Your task to perform on an android device: change the upload size in google photos Image 0: 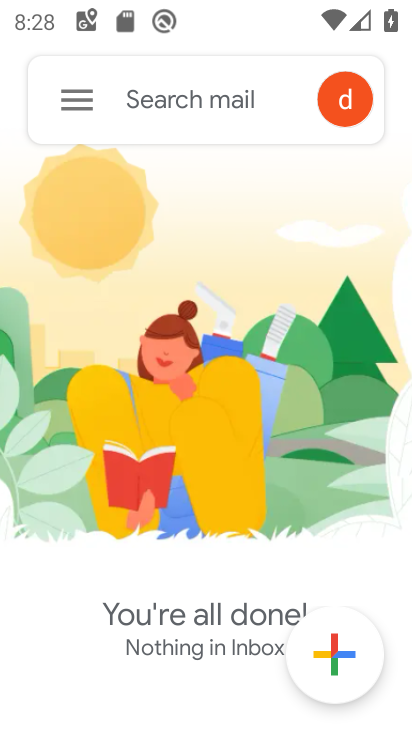
Step 0: press home button
Your task to perform on an android device: change the upload size in google photos Image 1: 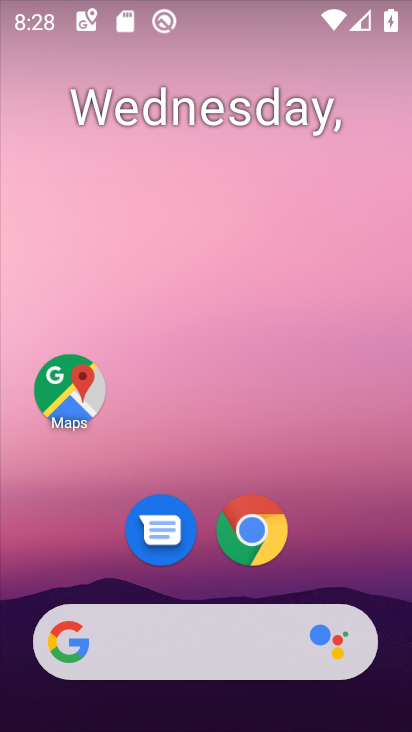
Step 1: drag from (399, 646) to (326, 39)
Your task to perform on an android device: change the upload size in google photos Image 2: 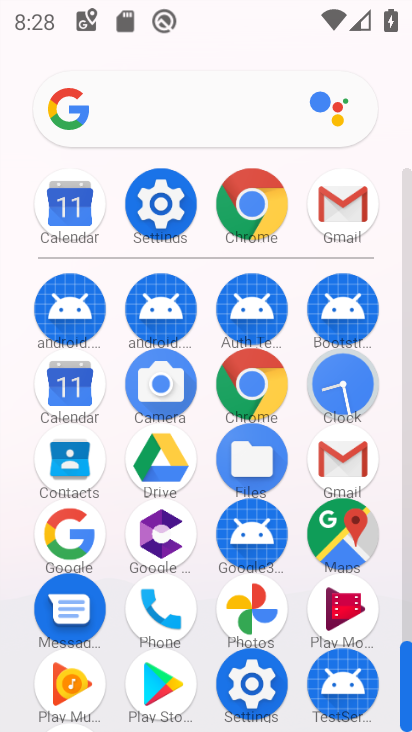
Step 2: click (266, 599)
Your task to perform on an android device: change the upload size in google photos Image 3: 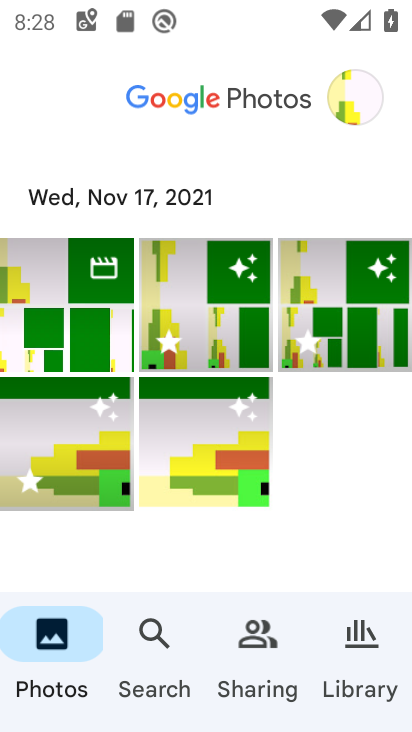
Step 3: click (341, 83)
Your task to perform on an android device: change the upload size in google photos Image 4: 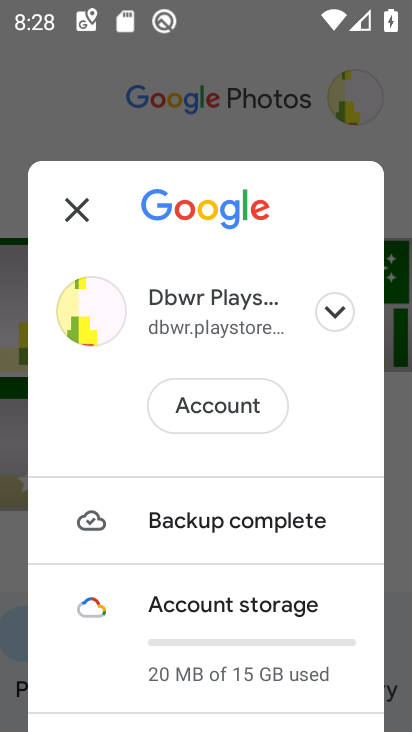
Step 4: drag from (219, 606) to (244, 275)
Your task to perform on an android device: change the upload size in google photos Image 5: 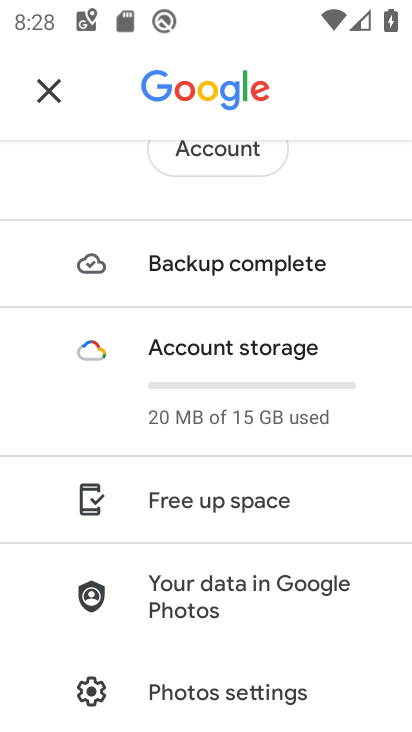
Step 5: click (200, 678)
Your task to perform on an android device: change the upload size in google photos Image 6: 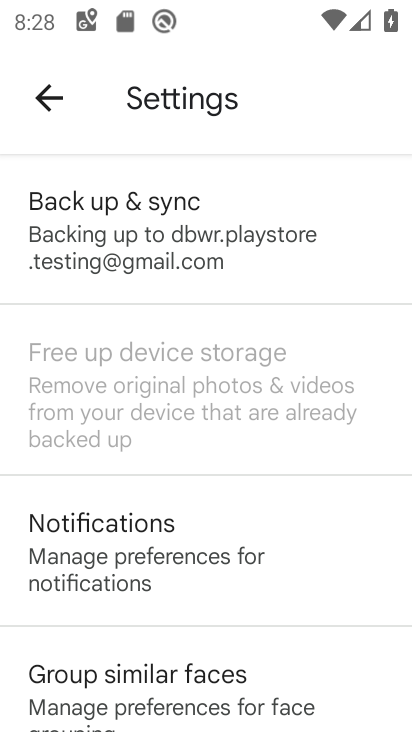
Step 6: click (162, 264)
Your task to perform on an android device: change the upload size in google photos Image 7: 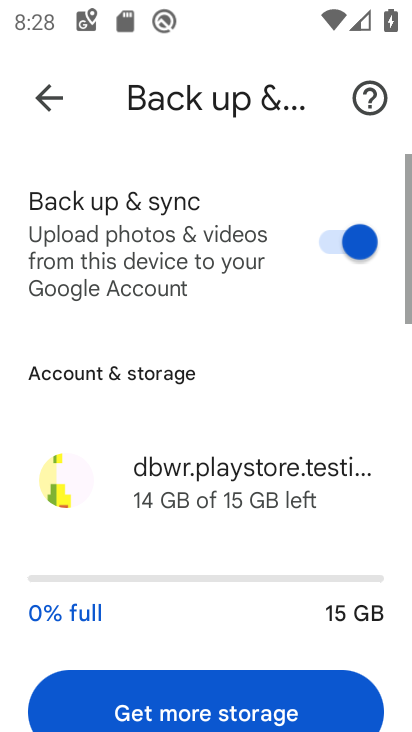
Step 7: drag from (193, 630) to (242, 205)
Your task to perform on an android device: change the upload size in google photos Image 8: 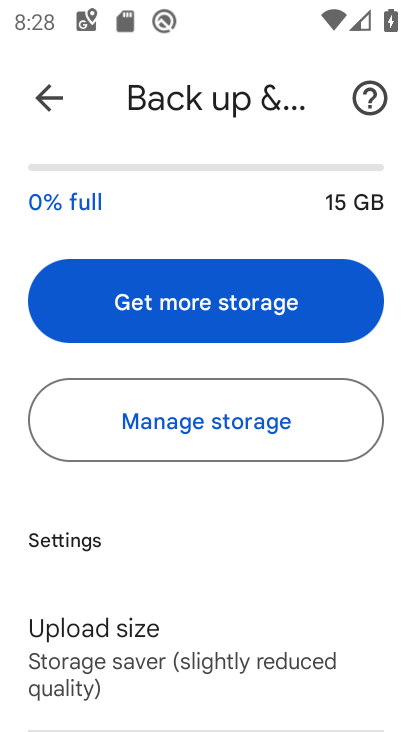
Step 8: click (131, 643)
Your task to perform on an android device: change the upload size in google photos Image 9: 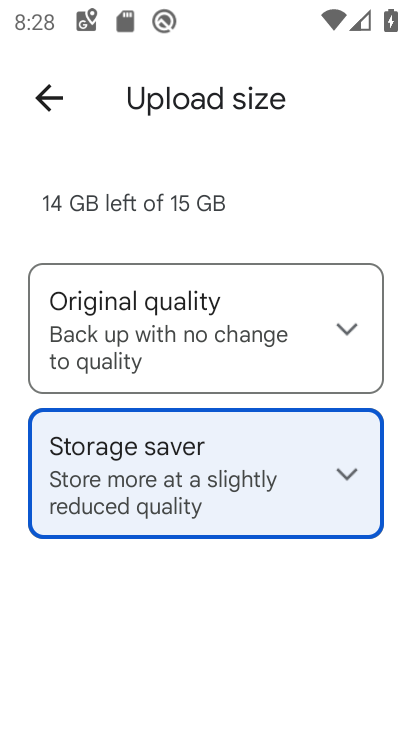
Step 9: click (361, 318)
Your task to perform on an android device: change the upload size in google photos Image 10: 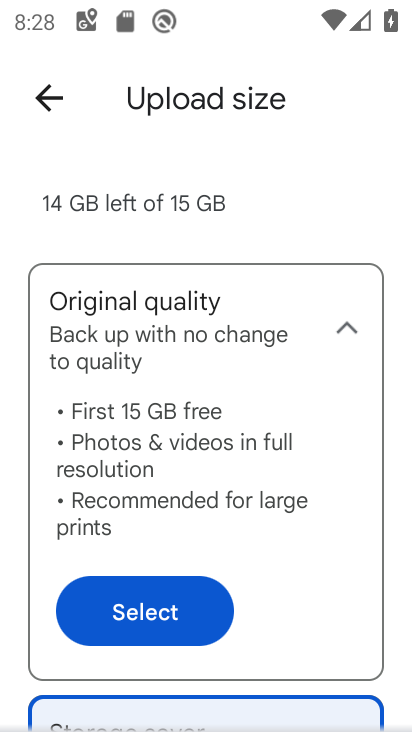
Step 10: click (112, 612)
Your task to perform on an android device: change the upload size in google photos Image 11: 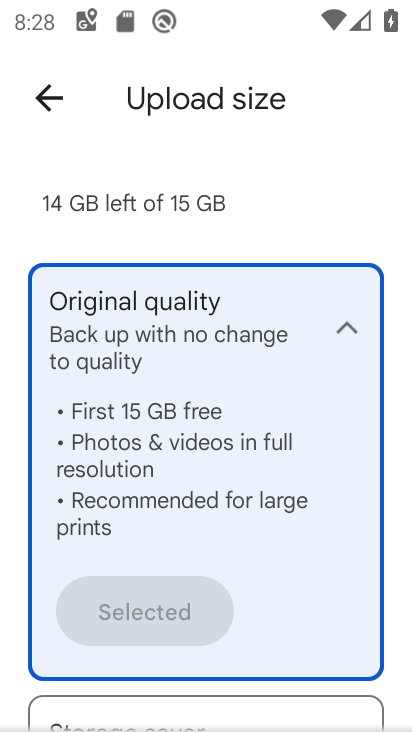
Step 11: task complete